Your task to perform on an android device: allow cookies in the chrome app Image 0: 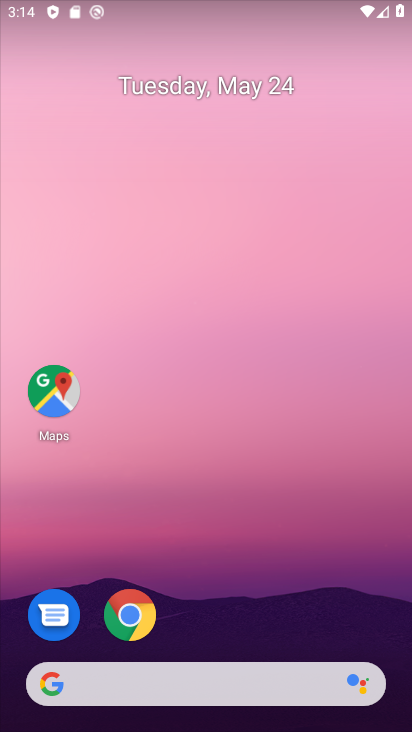
Step 0: click (182, 20)
Your task to perform on an android device: allow cookies in the chrome app Image 1: 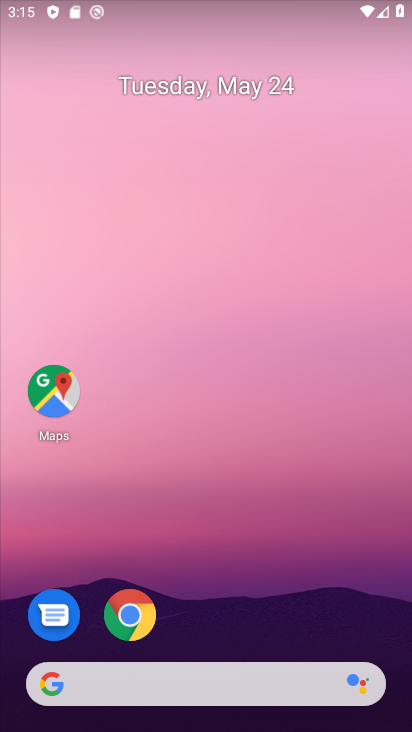
Step 1: drag from (225, 718) to (235, 71)
Your task to perform on an android device: allow cookies in the chrome app Image 2: 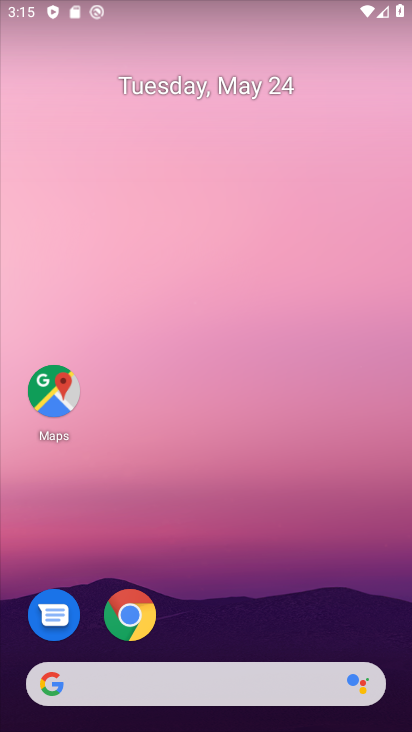
Step 2: click (125, 620)
Your task to perform on an android device: allow cookies in the chrome app Image 3: 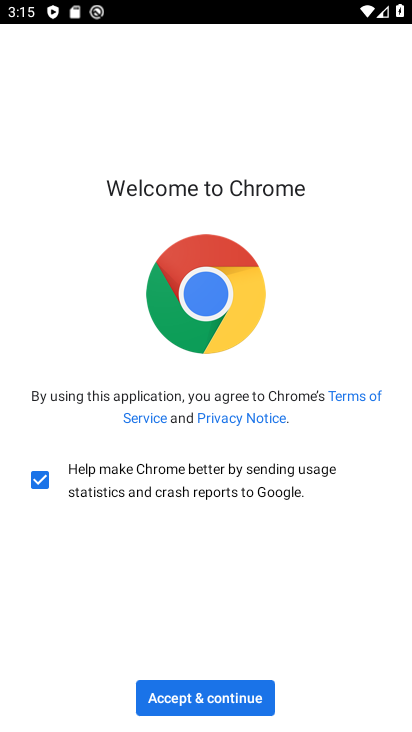
Step 3: click (219, 695)
Your task to perform on an android device: allow cookies in the chrome app Image 4: 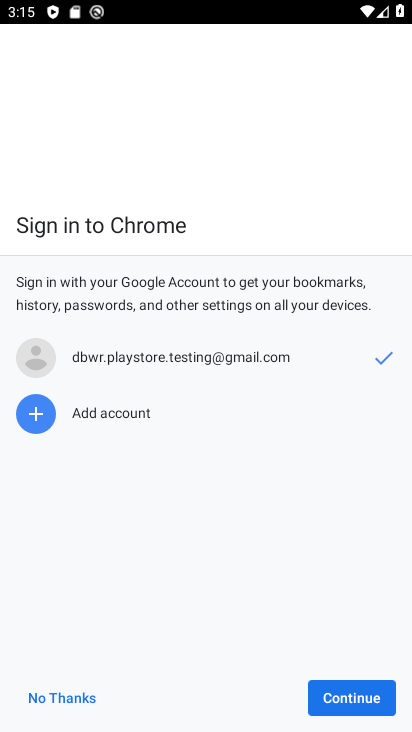
Step 4: click (332, 696)
Your task to perform on an android device: allow cookies in the chrome app Image 5: 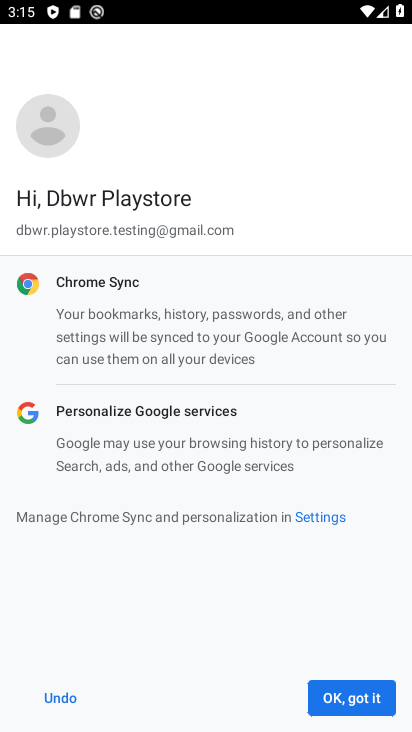
Step 5: click (332, 696)
Your task to perform on an android device: allow cookies in the chrome app Image 6: 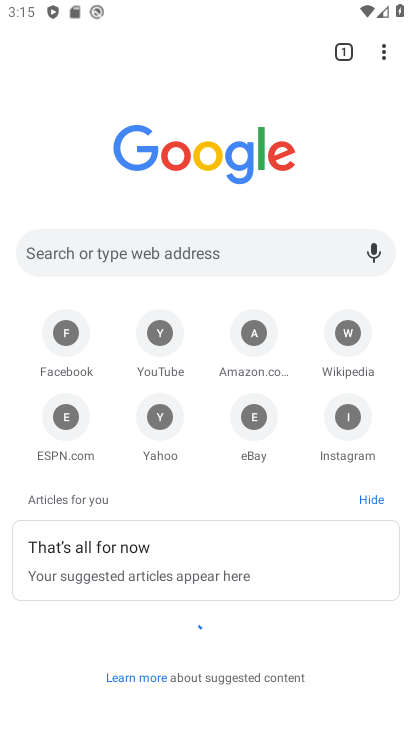
Step 6: click (383, 56)
Your task to perform on an android device: allow cookies in the chrome app Image 7: 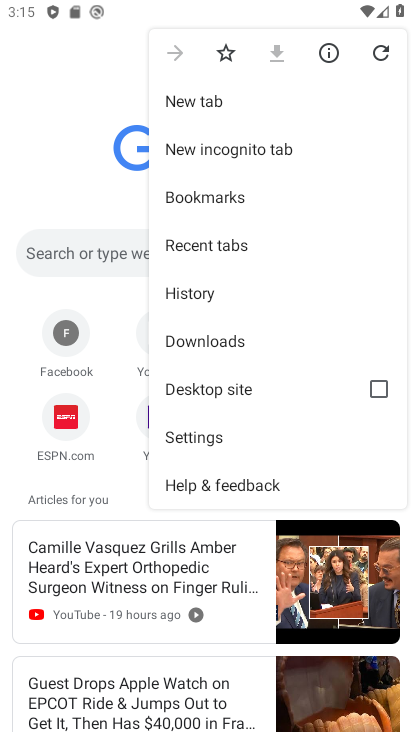
Step 7: click (186, 436)
Your task to perform on an android device: allow cookies in the chrome app Image 8: 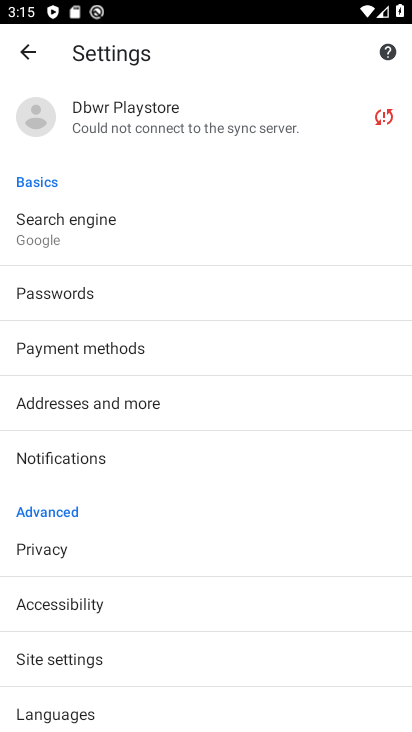
Step 8: click (123, 660)
Your task to perform on an android device: allow cookies in the chrome app Image 9: 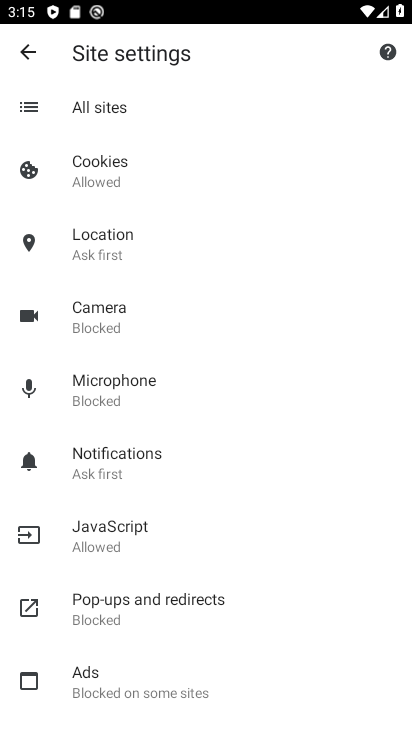
Step 9: click (105, 169)
Your task to perform on an android device: allow cookies in the chrome app Image 10: 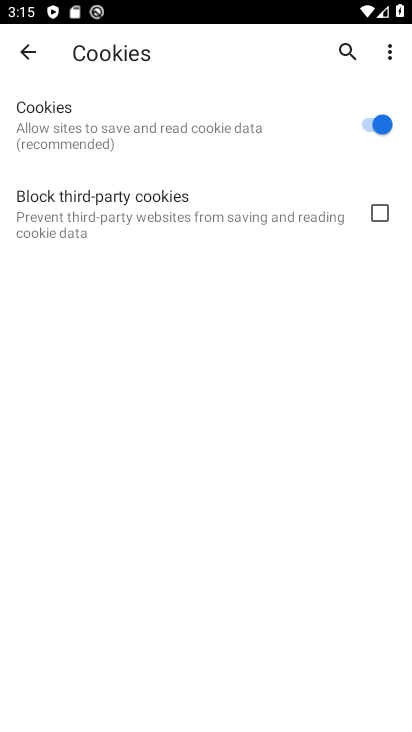
Step 10: task complete